Your task to perform on an android device: all mails in gmail Image 0: 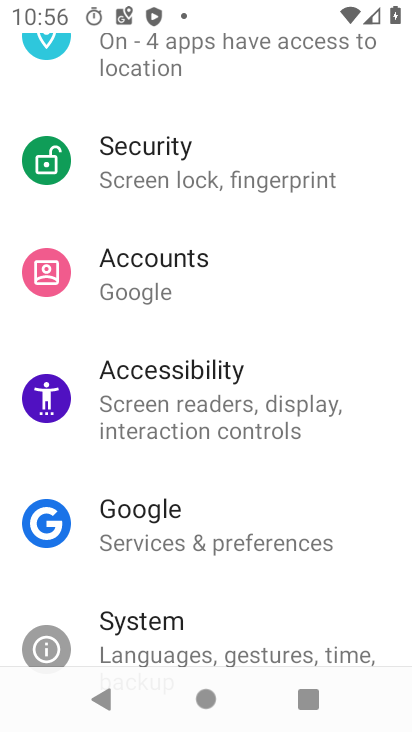
Step 0: press home button
Your task to perform on an android device: all mails in gmail Image 1: 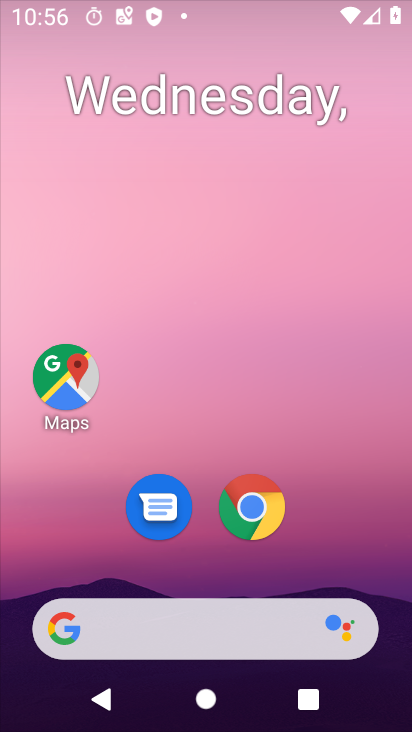
Step 1: drag from (227, 530) to (218, 169)
Your task to perform on an android device: all mails in gmail Image 2: 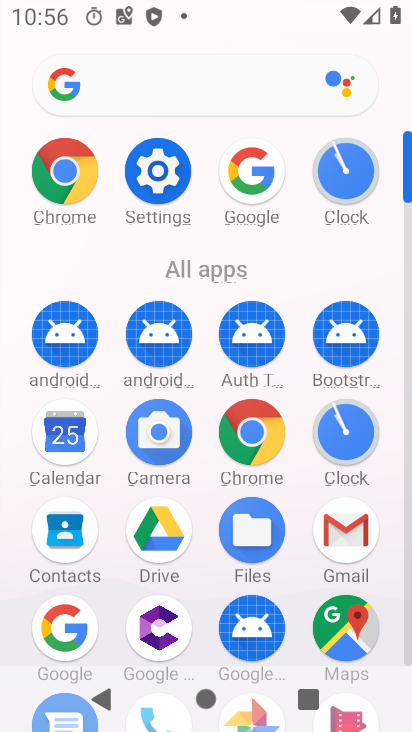
Step 2: click (338, 529)
Your task to perform on an android device: all mails in gmail Image 3: 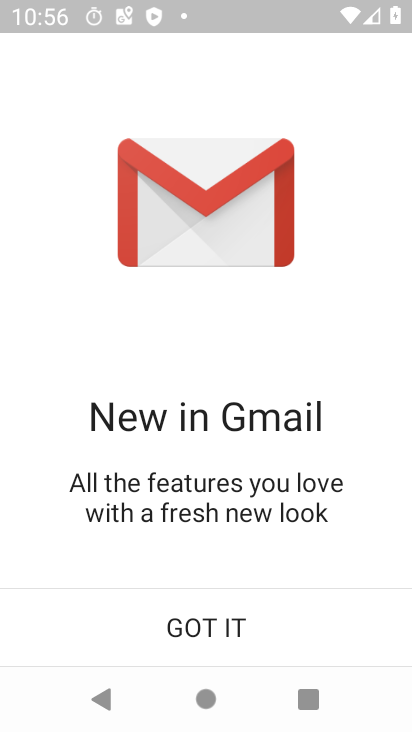
Step 3: click (213, 622)
Your task to perform on an android device: all mails in gmail Image 4: 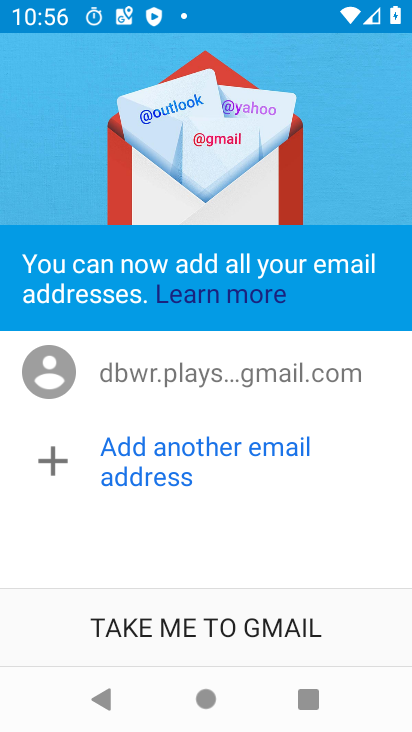
Step 4: click (213, 625)
Your task to perform on an android device: all mails in gmail Image 5: 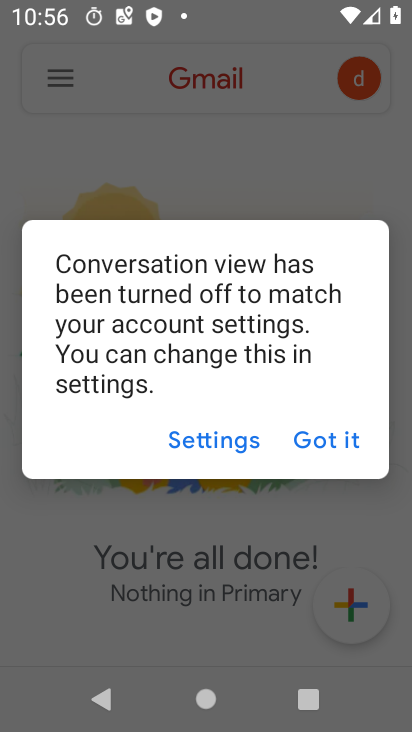
Step 5: click (305, 438)
Your task to perform on an android device: all mails in gmail Image 6: 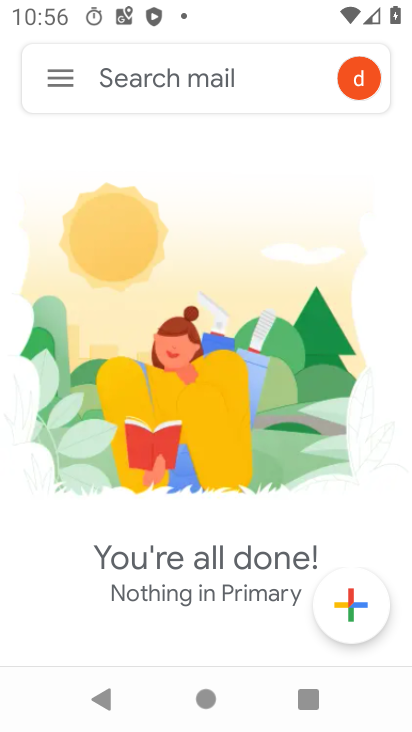
Step 6: click (60, 79)
Your task to perform on an android device: all mails in gmail Image 7: 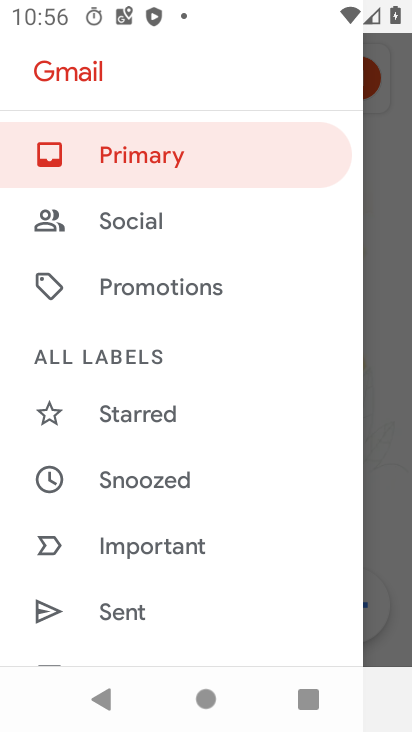
Step 7: drag from (173, 606) to (176, 198)
Your task to perform on an android device: all mails in gmail Image 8: 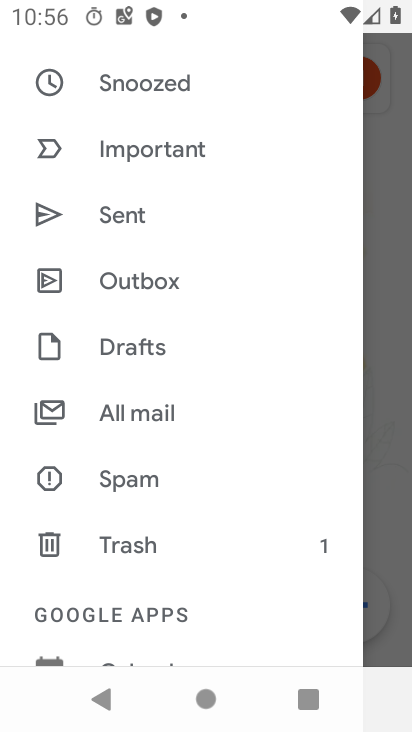
Step 8: click (142, 415)
Your task to perform on an android device: all mails in gmail Image 9: 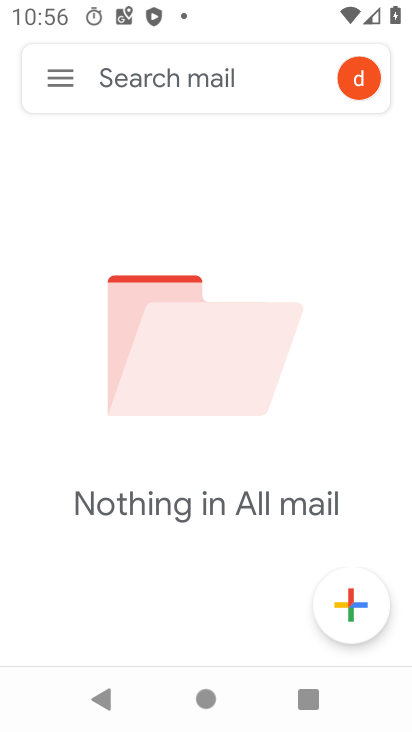
Step 9: task complete